Your task to perform on an android device: Open the calendar app, open the side menu, and click the "Day" option Image 0: 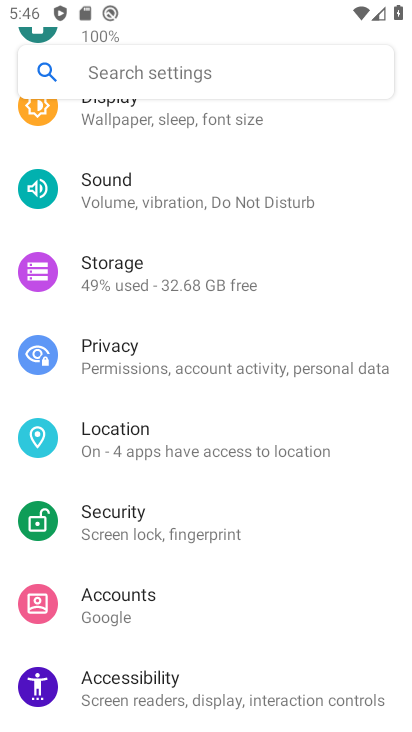
Step 0: press back button
Your task to perform on an android device: Open the calendar app, open the side menu, and click the "Day" option Image 1: 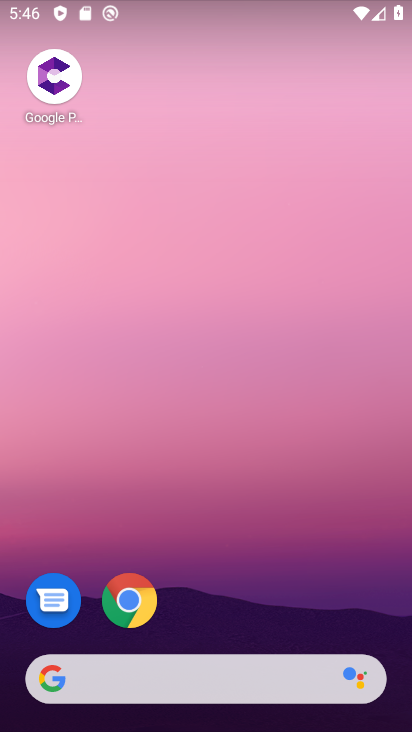
Step 1: drag from (212, 612) to (185, 0)
Your task to perform on an android device: Open the calendar app, open the side menu, and click the "Day" option Image 2: 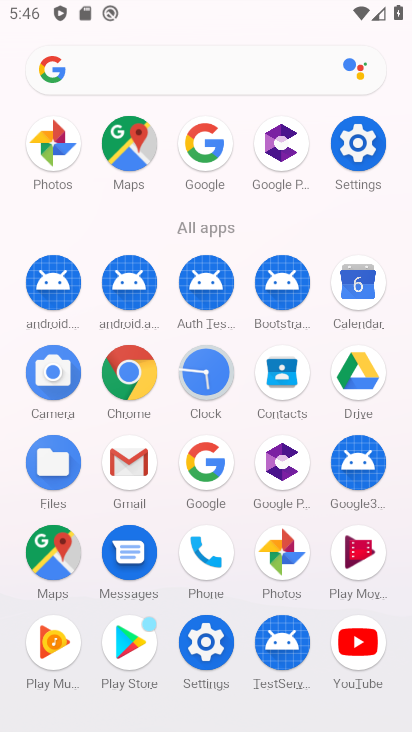
Step 2: click (364, 285)
Your task to perform on an android device: Open the calendar app, open the side menu, and click the "Day" option Image 3: 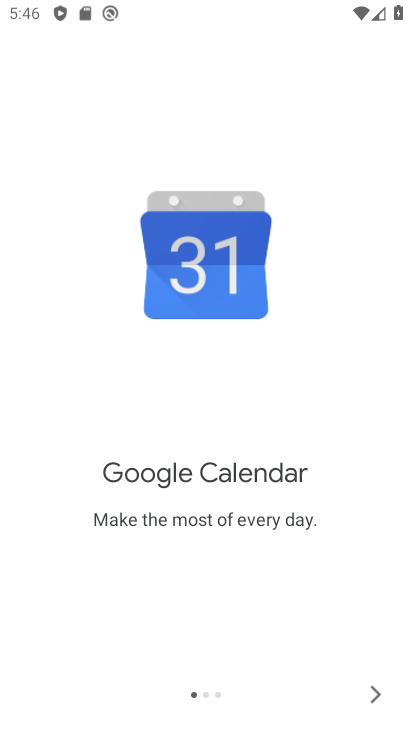
Step 3: click (374, 693)
Your task to perform on an android device: Open the calendar app, open the side menu, and click the "Day" option Image 4: 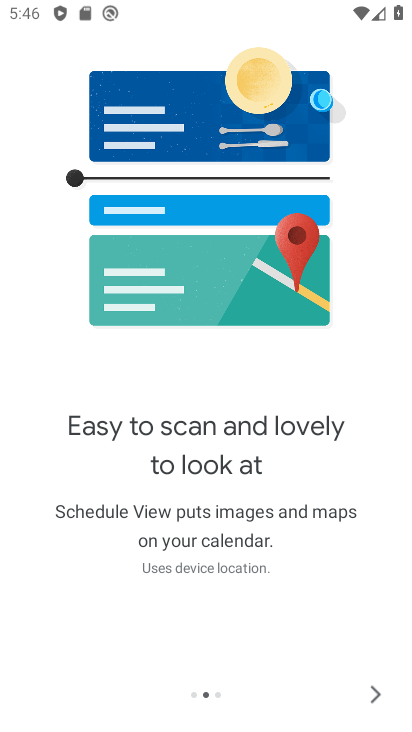
Step 4: click (374, 693)
Your task to perform on an android device: Open the calendar app, open the side menu, and click the "Day" option Image 5: 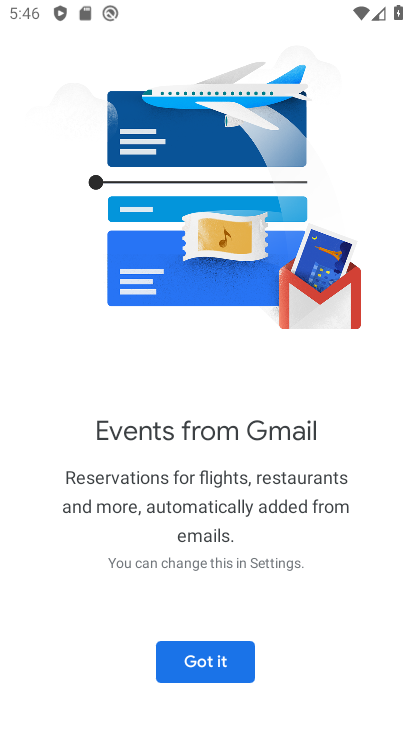
Step 5: click (201, 665)
Your task to perform on an android device: Open the calendar app, open the side menu, and click the "Day" option Image 6: 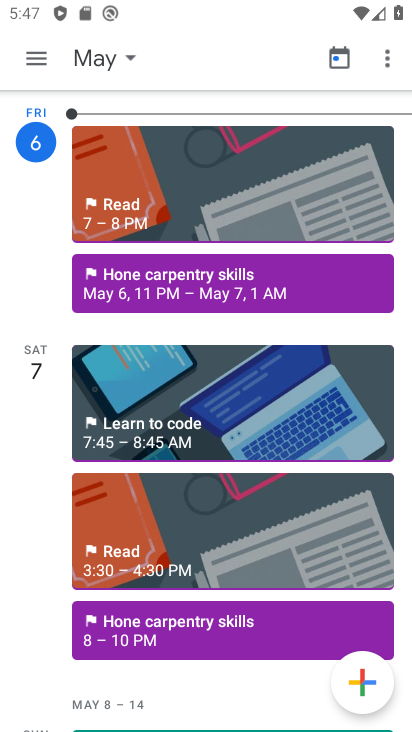
Step 6: click (37, 52)
Your task to perform on an android device: Open the calendar app, open the side menu, and click the "Day" option Image 7: 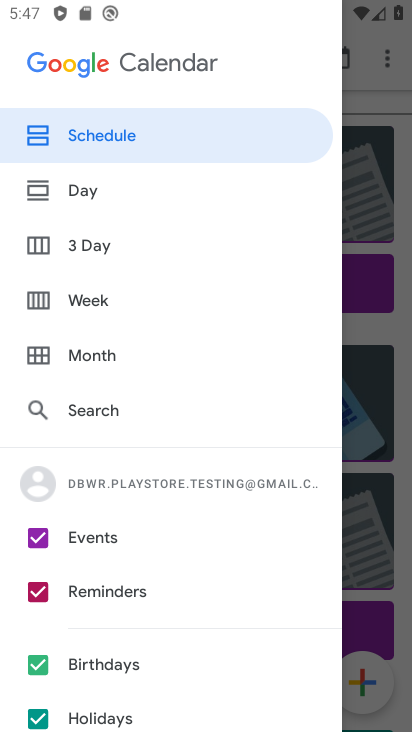
Step 7: click (85, 194)
Your task to perform on an android device: Open the calendar app, open the side menu, and click the "Day" option Image 8: 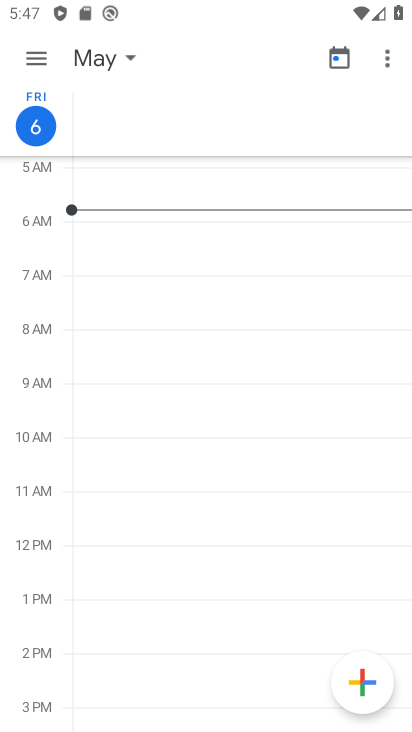
Step 8: task complete